Your task to perform on an android device: turn off smart reply in the gmail app Image 0: 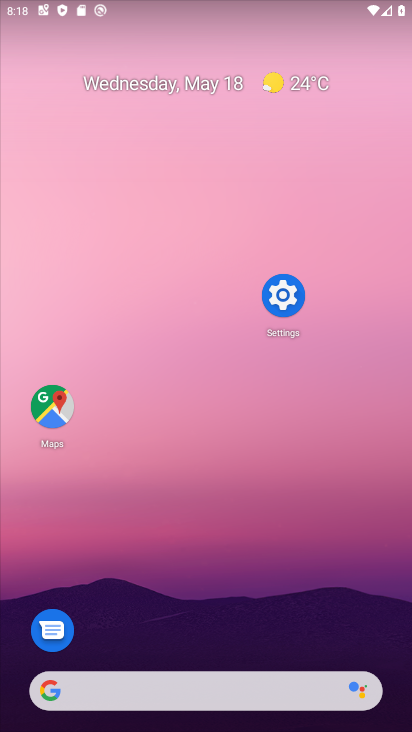
Step 0: click (240, 146)
Your task to perform on an android device: turn off smart reply in the gmail app Image 1: 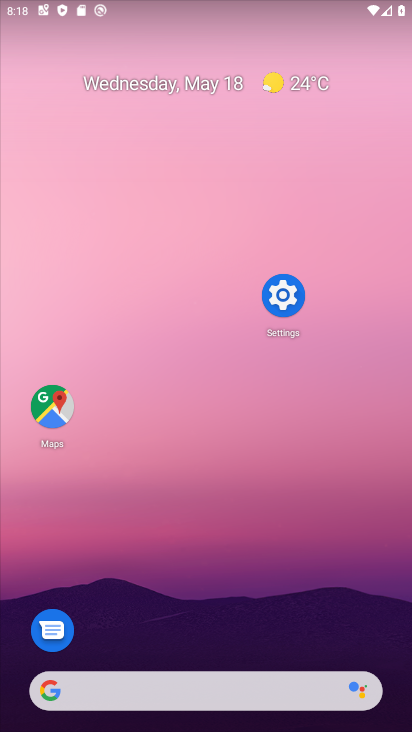
Step 1: drag from (183, 653) to (183, 239)
Your task to perform on an android device: turn off smart reply in the gmail app Image 2: 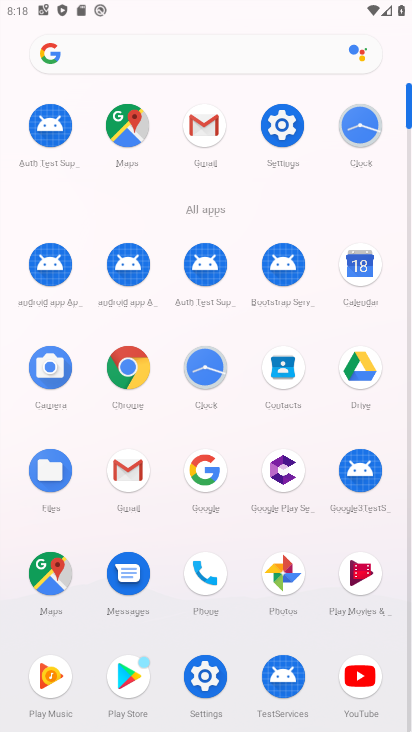
Step 2: click (133, 472)
Your task to perform on an android device: turn off smart reply in the gmail app Image 3: 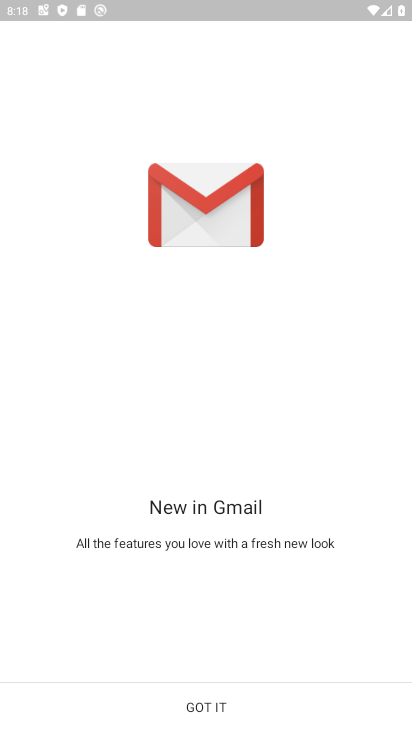
Step 3: click (210, 712)
Your task to perform on an android device: turn off smart reply in the gmail app Image 4: 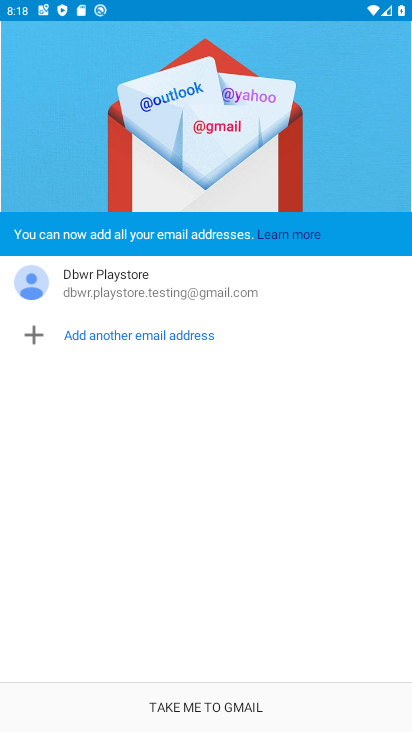
Step 4: click (208, 707)
Your task to perform on an android device: turn off smart reply in the gmail app Image 5: 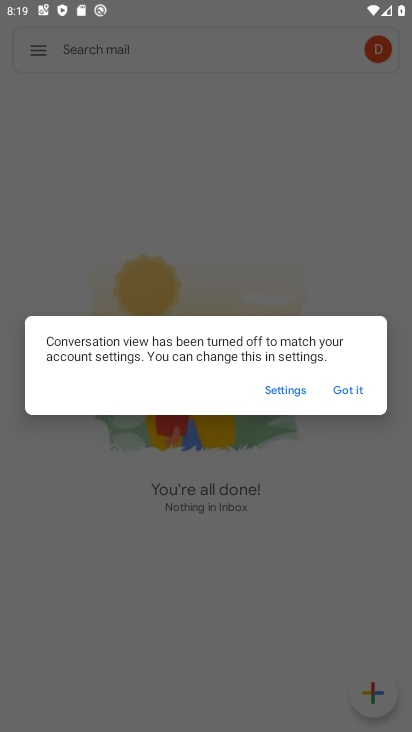
Step 5: click (346, 391)
Your task to perform on an android device: turn off smart reply in the gmail app Image 6: 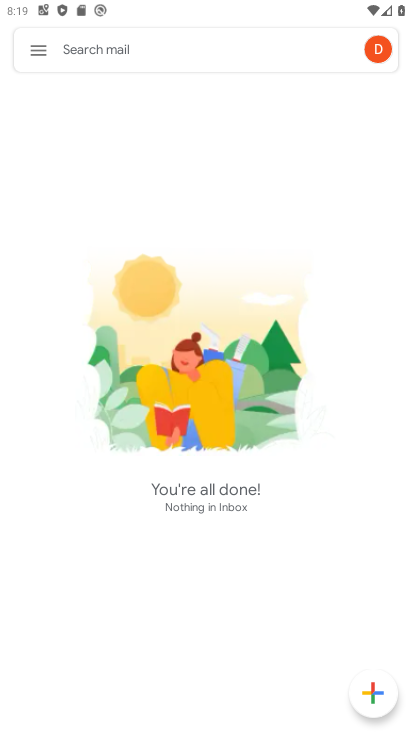
Step 6: click (45, 55)
Your task to perform on an android device: turn off smart reply in the gmail app Image 7: 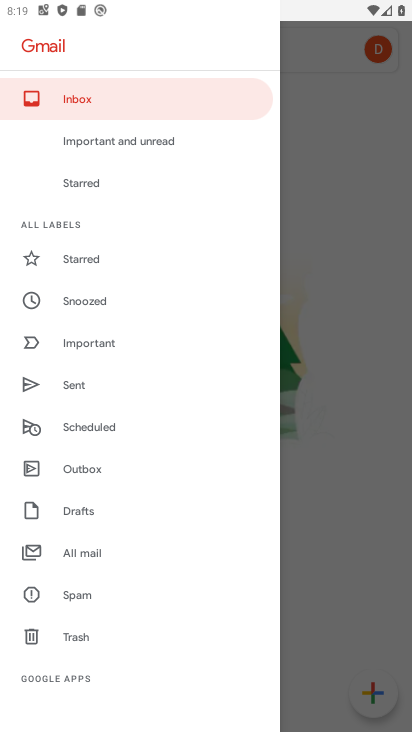
Step 7: drag from (77, 701) to (111, 168)
Your task to perform on an android device: turn off smart reply in the gmail app Image 8: 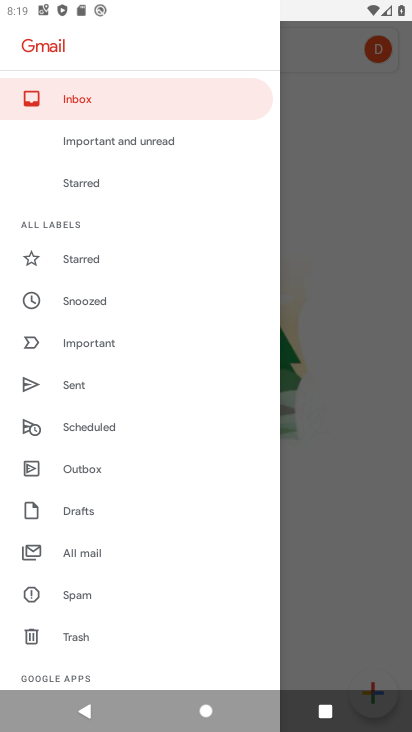
Step 8: drag from (93, 647) to (149, 195)
Your task to perform on an android device: turn off smart reply in the gmail app Image 9: 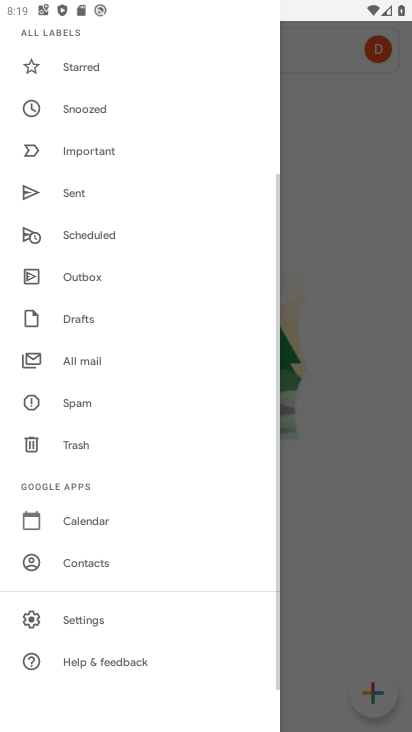
Step 9: drag from (96, 674) to (165, 292)
Your task to perform on an android device: turn off smart reply in the gmail app Image 10: 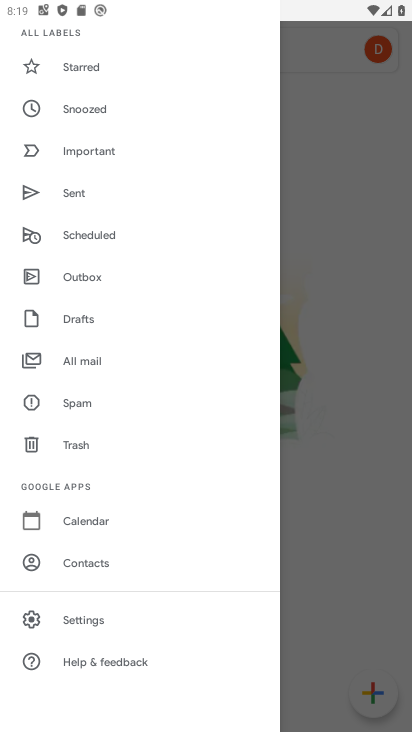
Step 10: click (82, 619)
Your task to perform on an android device: turn off smart reply in the gmail app Image 11: 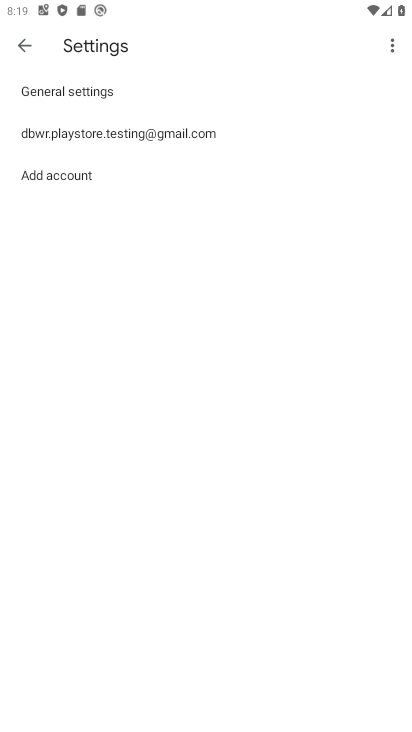
Step 11: click (142, 128)
Your task to perform on an android device: turn off smart reply in the gmail app Image 12: 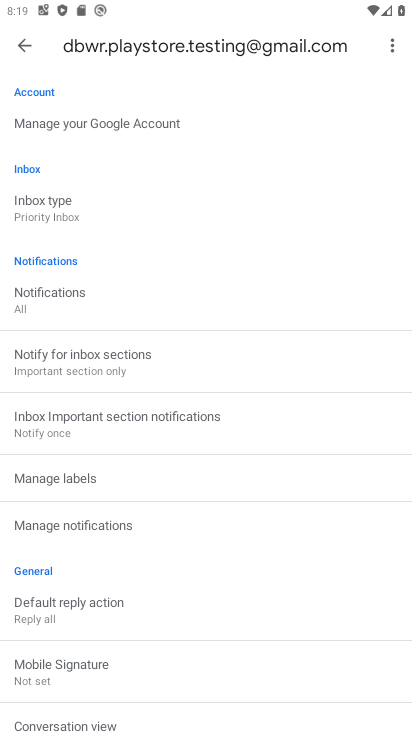
Step 12: drag from (238, 676) to (252, 260)
Your task to perform on an android device: turn off smart reply in the gmail app Image 13: 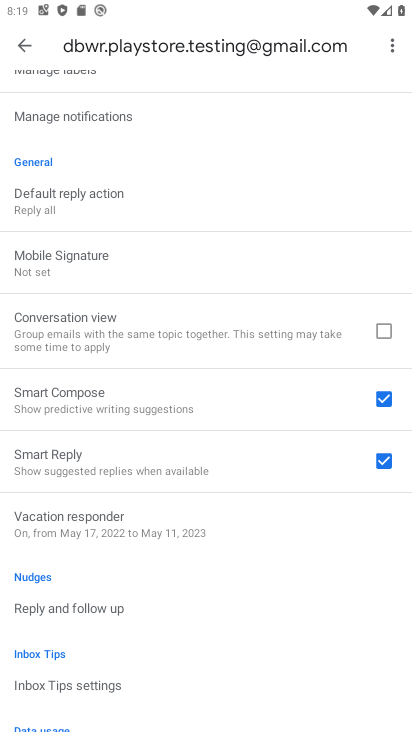
Step 13: drag from (205, 670) to (262, 272)
Your task to perform on an android device: turn off smart reply in the gmail app Image 14: 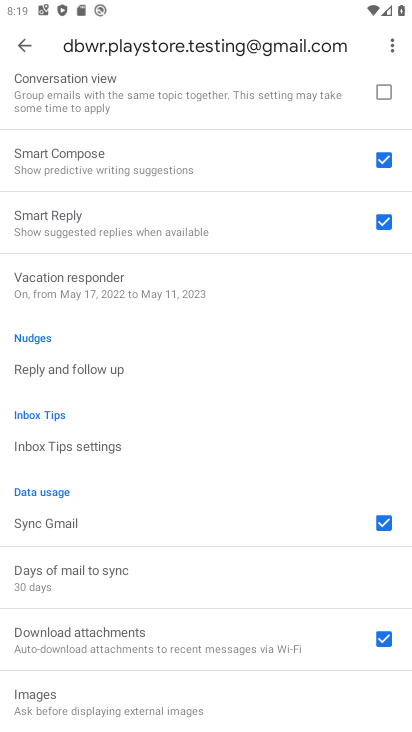
Step 14: click (386, 220)
Your task to perform on an android device: turn off smart reply in the gmail app Image 15: 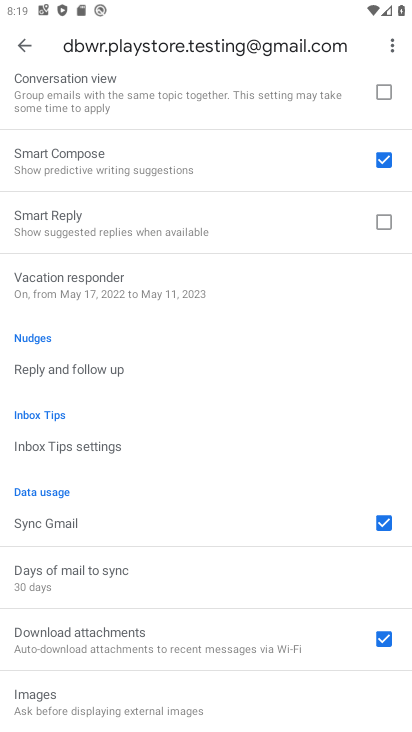
Step 15: task complete